Your task to perform on an android device: Open settings on Google Maps Image 0: 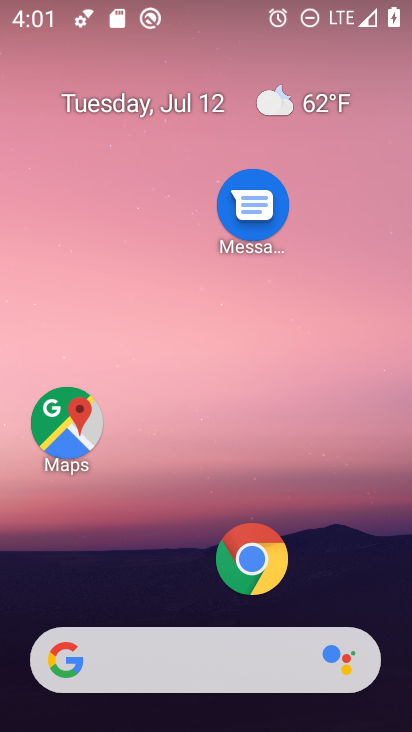
Step 0: click (86, 408)
Your task to perform on an android device: Open settings on Google Maps Image 1: 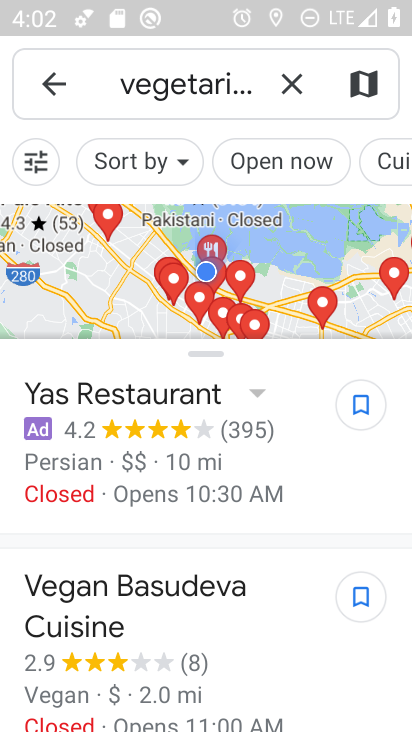
Step 1: task complete